Your task to perform on an android device: Open network settings Image 0: 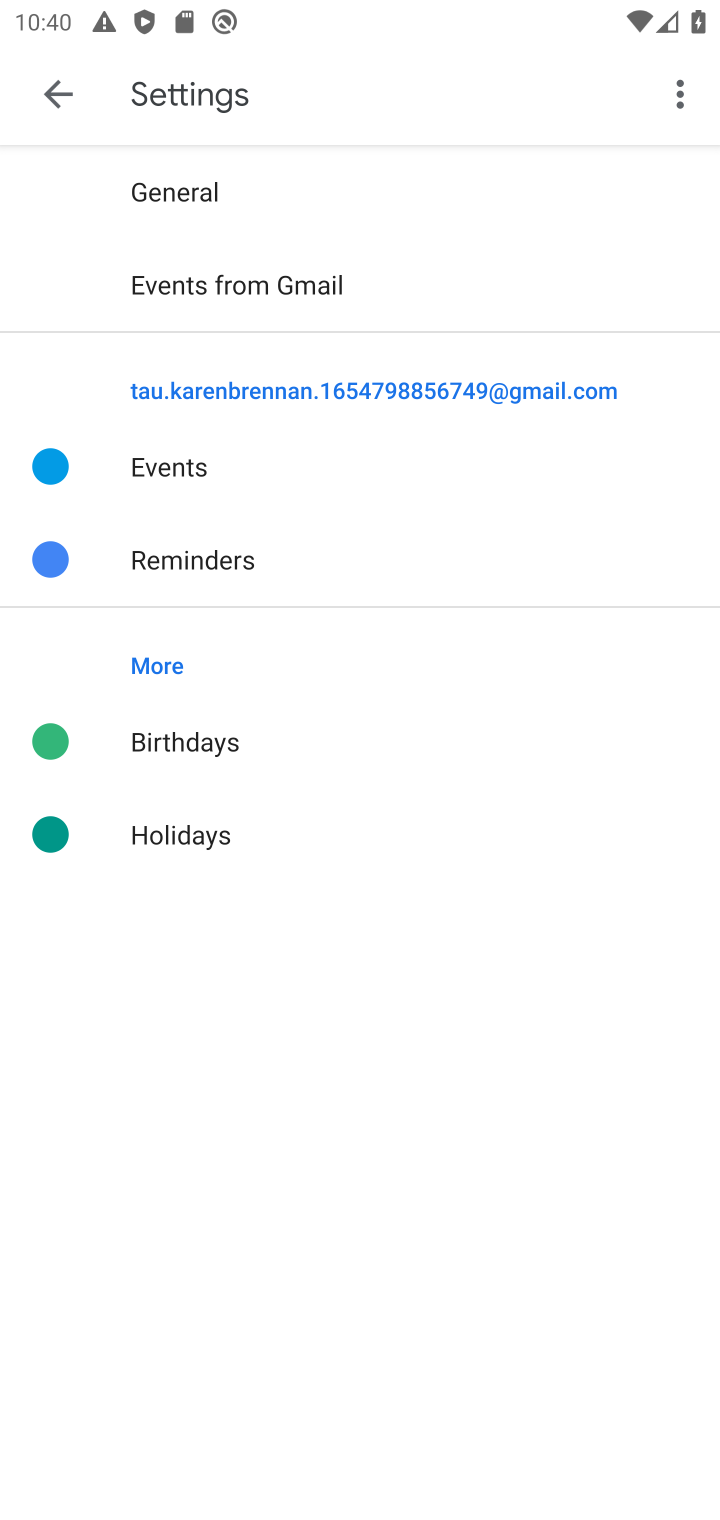
Step 0: press home button
Your task to perform on an android device: Open network settings Image 1: 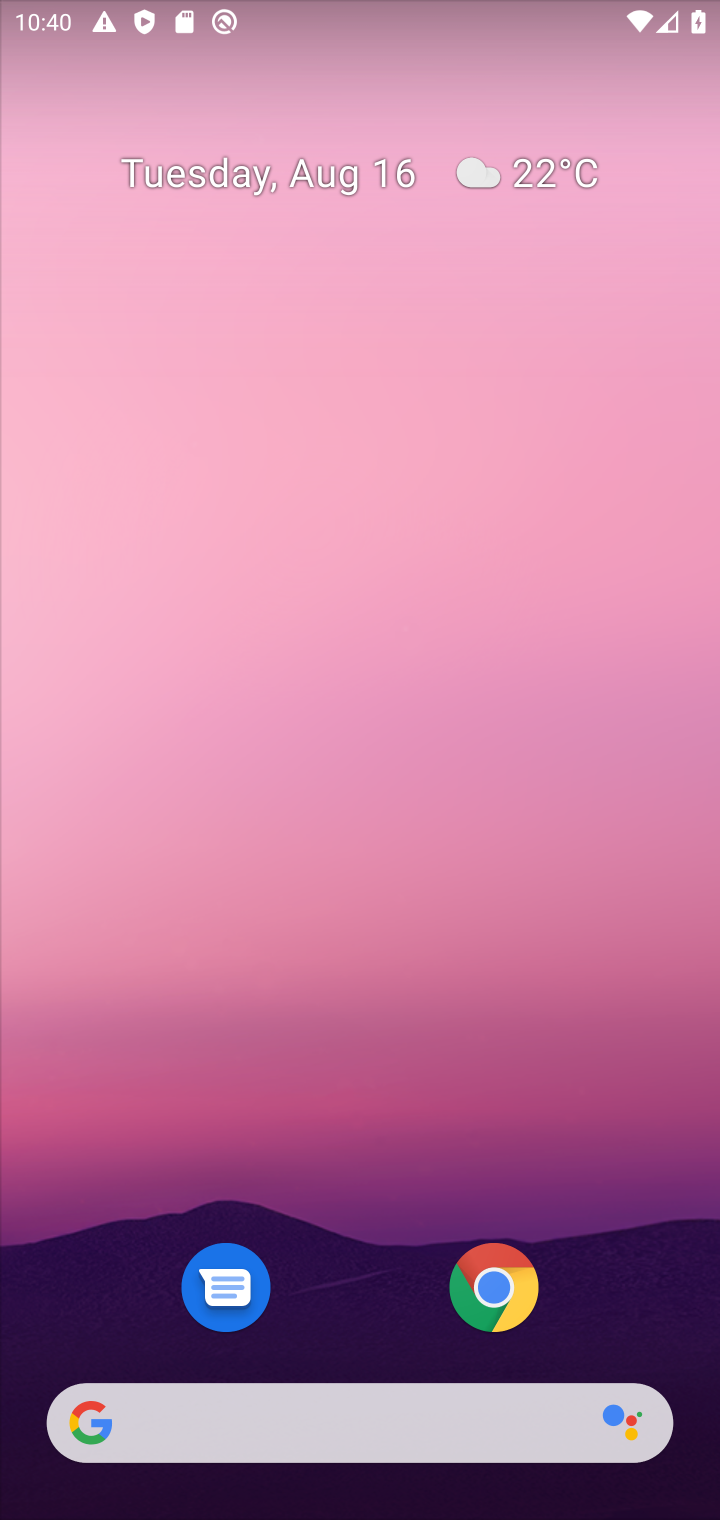
Step 1: drag from (644, 1345) to (587, 298)
Your task to perform on an android device: Open network settings Image 2: 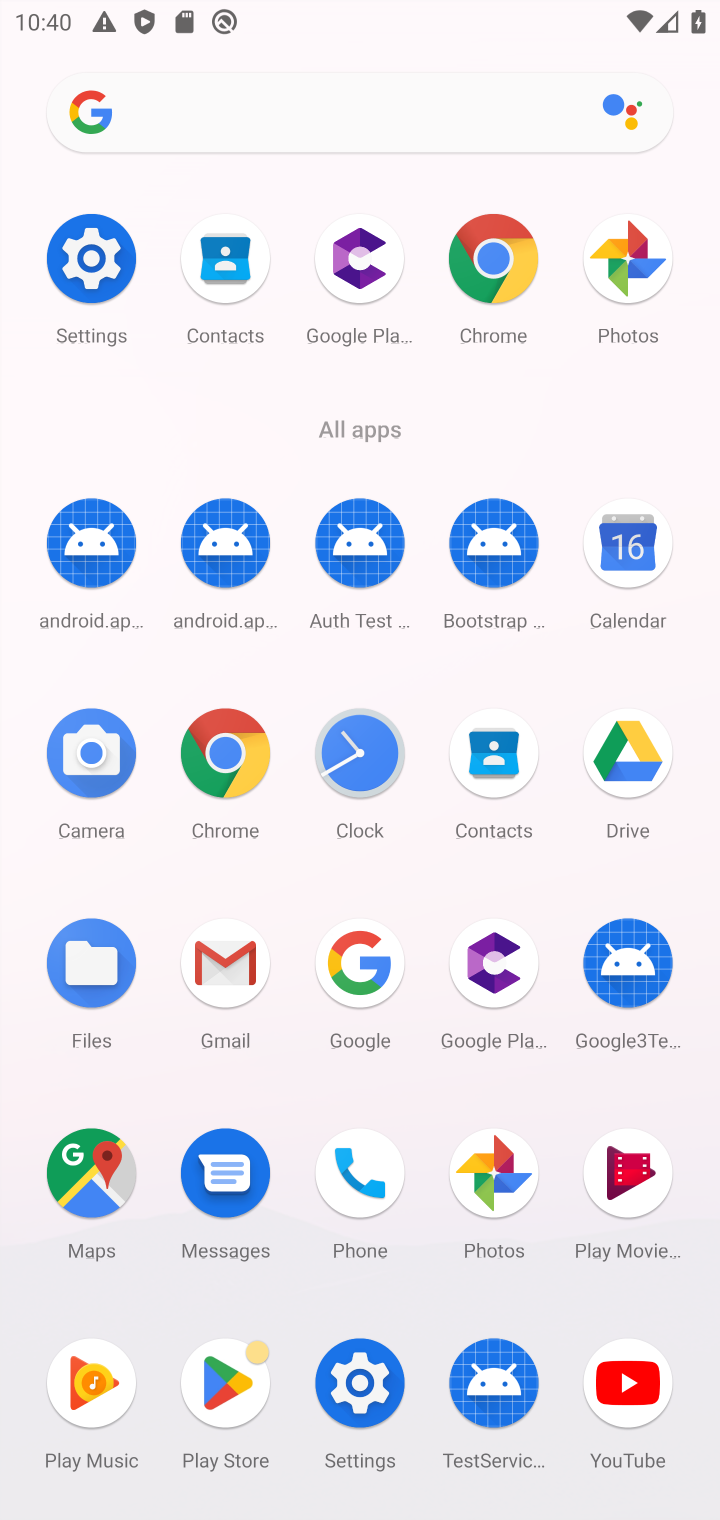
Step 2: click (361, 1381)
Your task to perform on an android device: Open network settings Image 3: 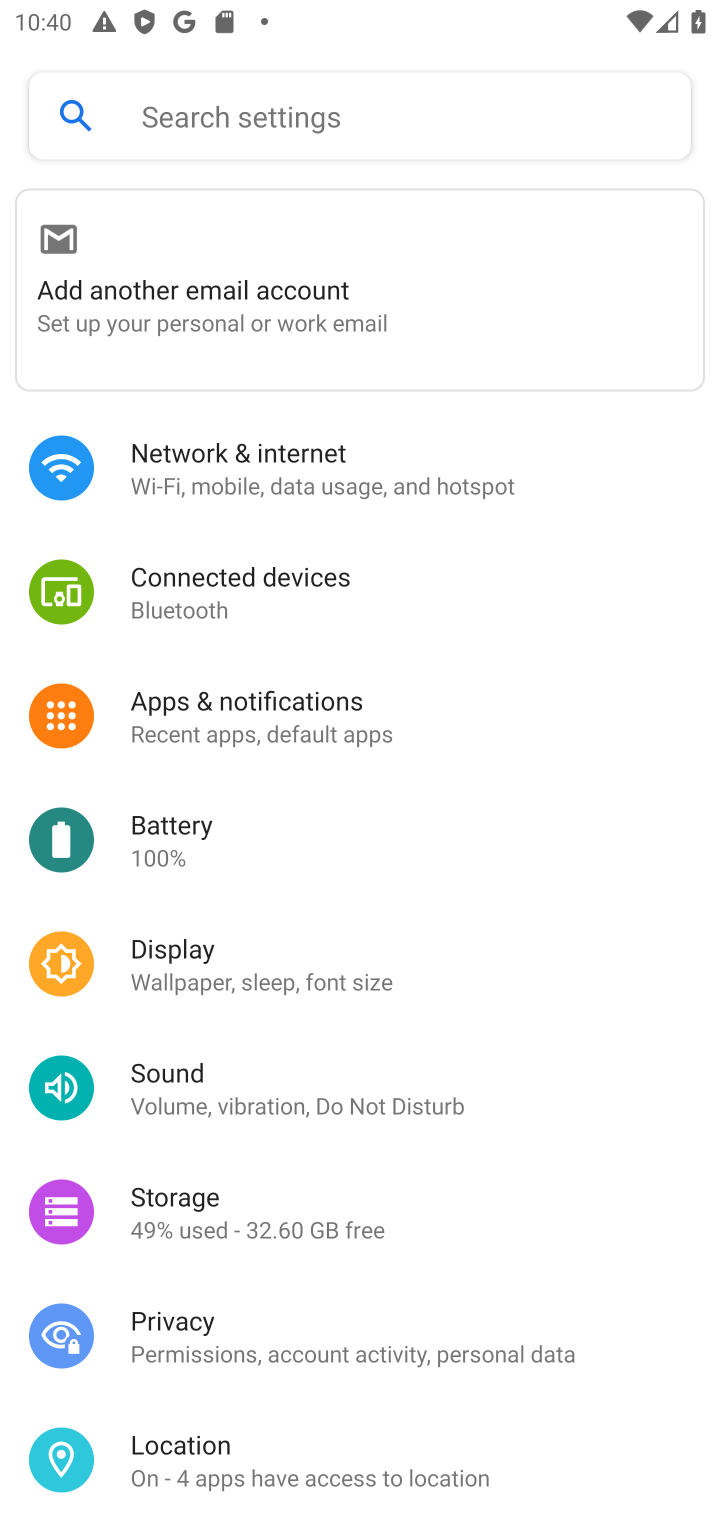
Step 3: click (193, 458)
Your task to perform on an android device: Open network settings Image 4: 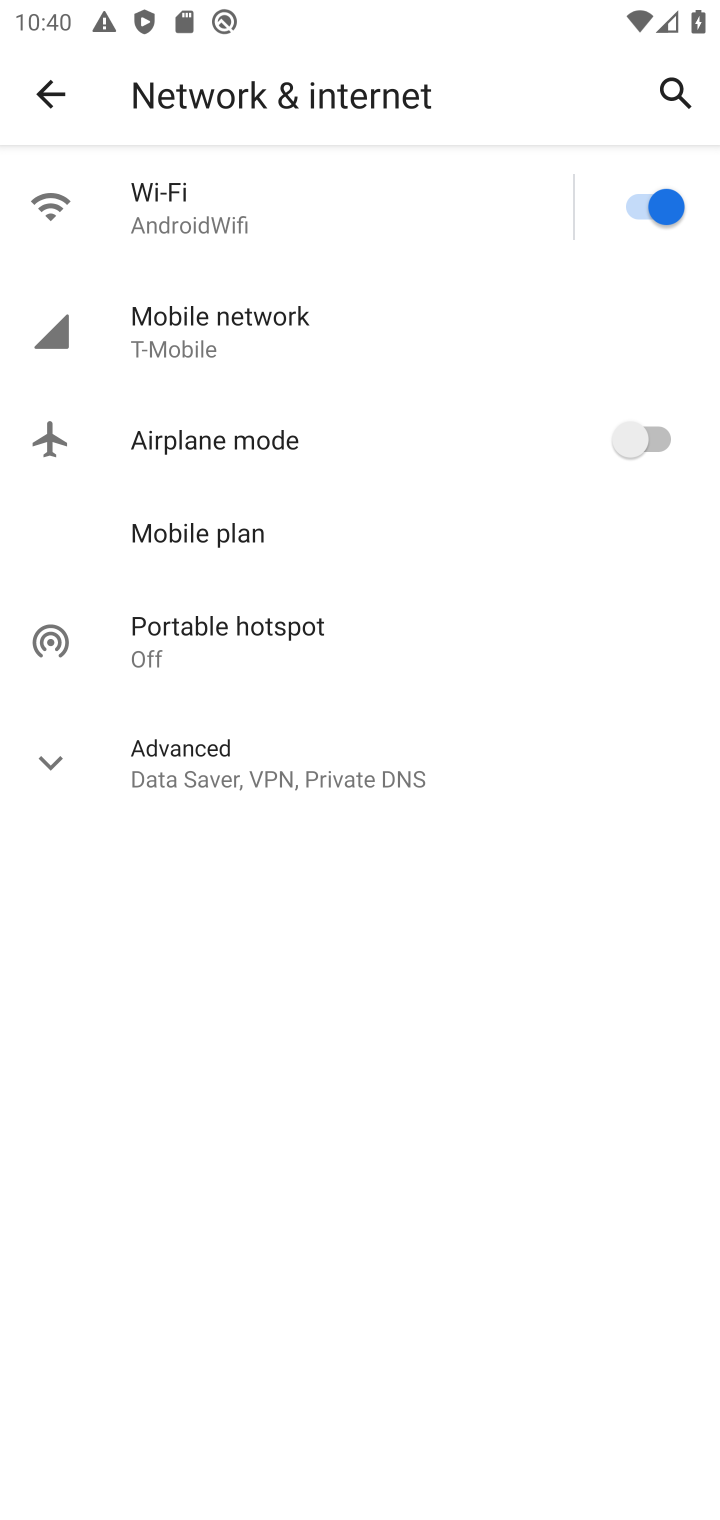
Step 4: click (219, 308)
Your task to perform on an android device: Open network settings Image 5: 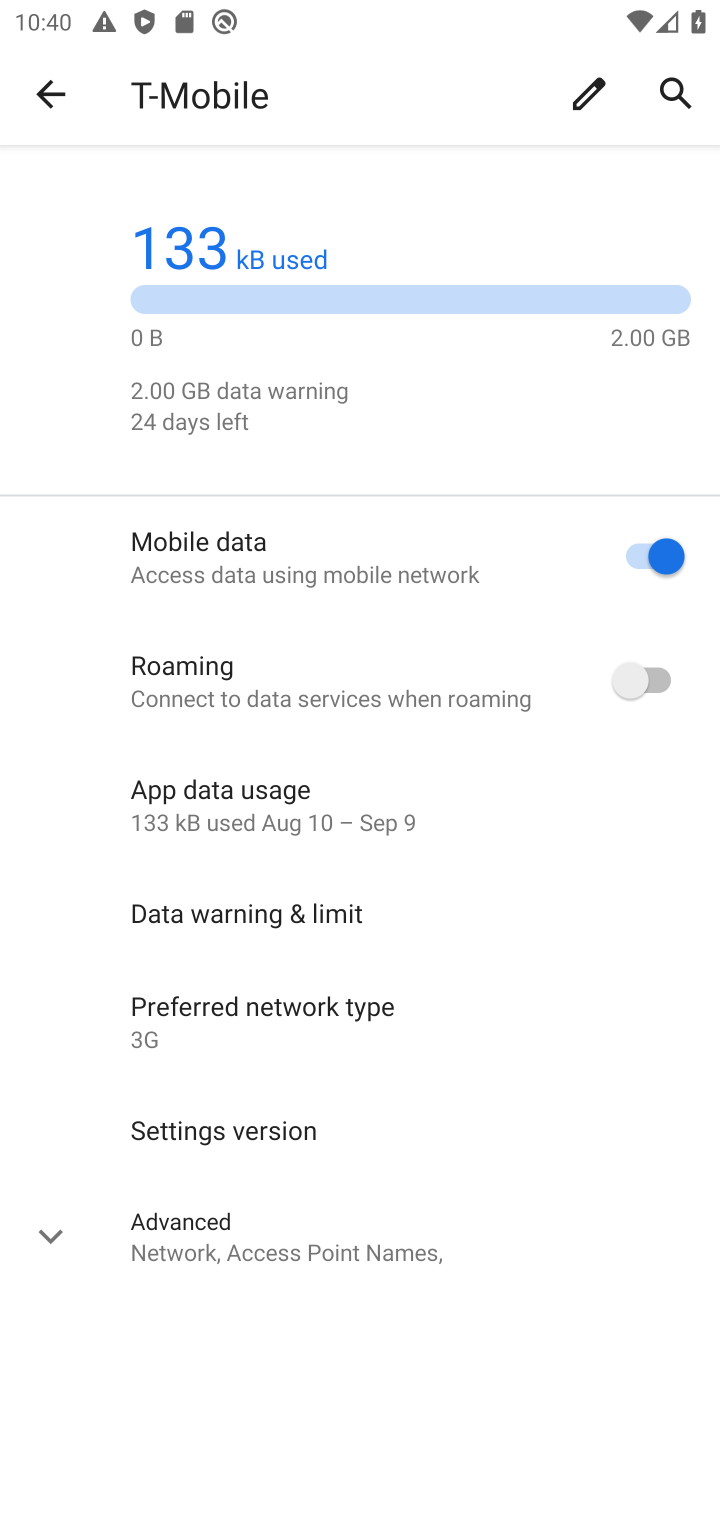
Step 5: drag from (535, 1108) to (547, 666)
Your task to perform on an android device: Open network settings Image 6: 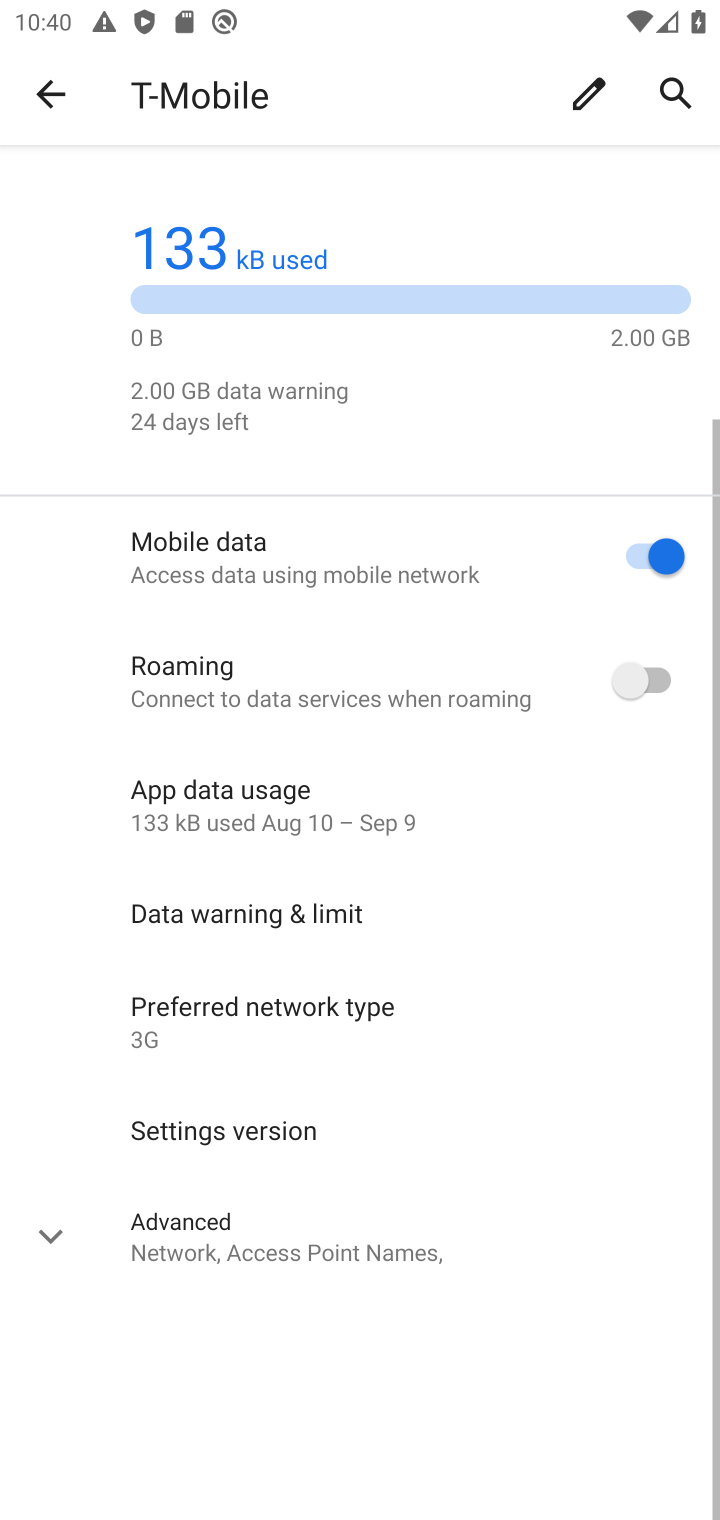
Step 6: click (38, 1219)
Your task to perform on an android device: Open network settings Image 7: 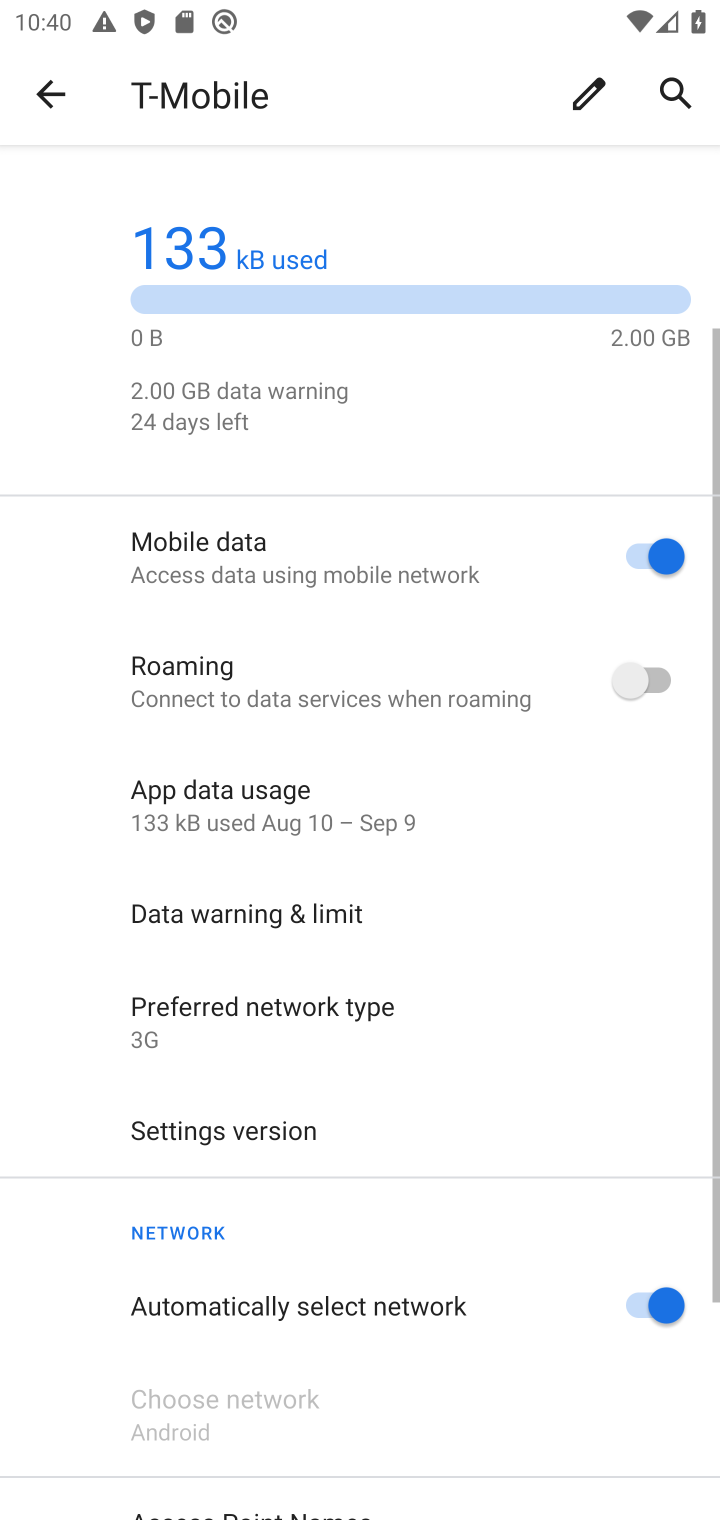
Step 7: task complete